Your task to perform on an android device: Is it going to rain this weekend? Image 0: 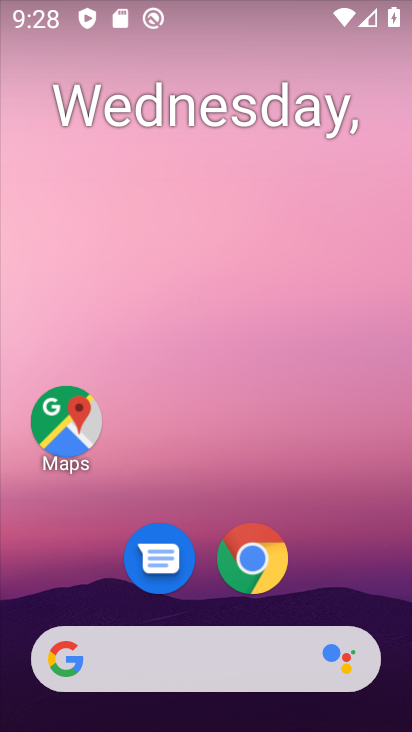
Step 0: press home button
Your task to perform on an android device: Is it going to rain this weekend? Image 1: 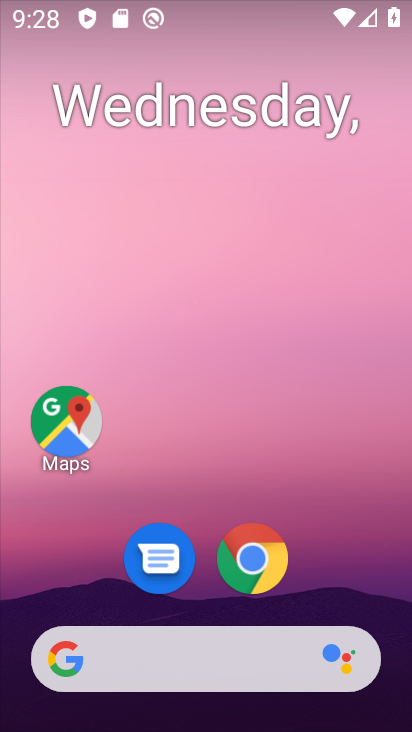
Step 1: click (202, 673)
Your task to perform on an android device: Is it going to rain this weekend? Image 2: 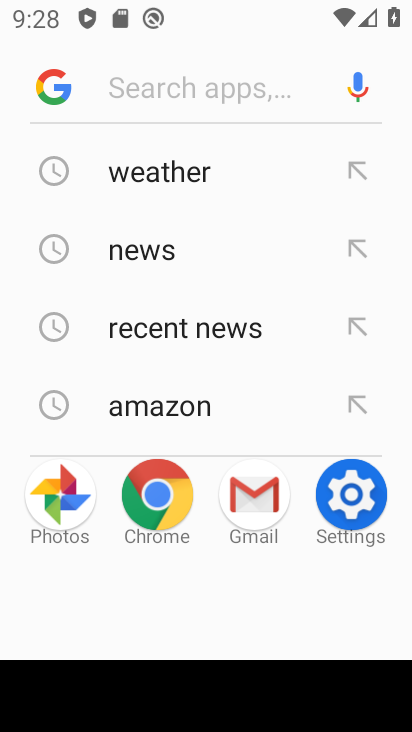
Step 2: click (204, 171)
Your task to perform on an android device: Is it going to rain this weekend? Image 3: 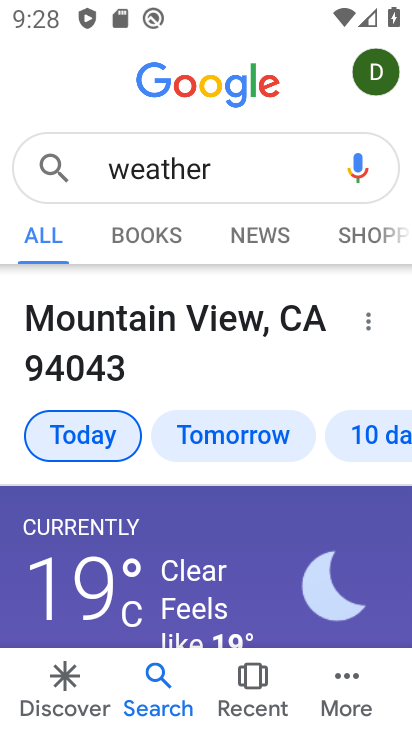
Step 3: click (357, 429)
Your task to perform on an android device: Is it going to rain this weekend? Image 4: 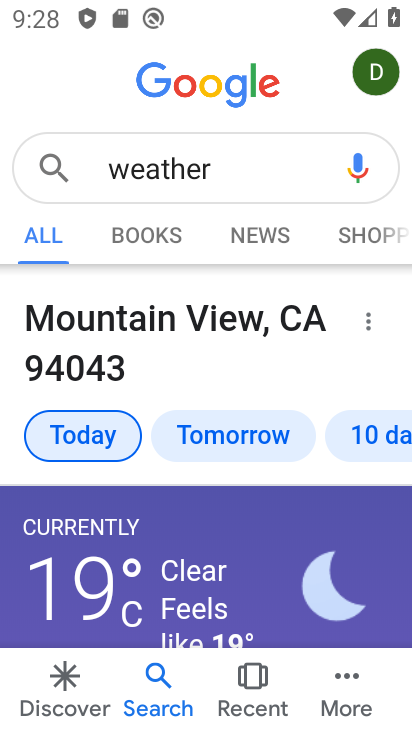
Step 4: click (361, 428)
Your task to perform on an android device: Is it going to rain this weekend? Image 5: 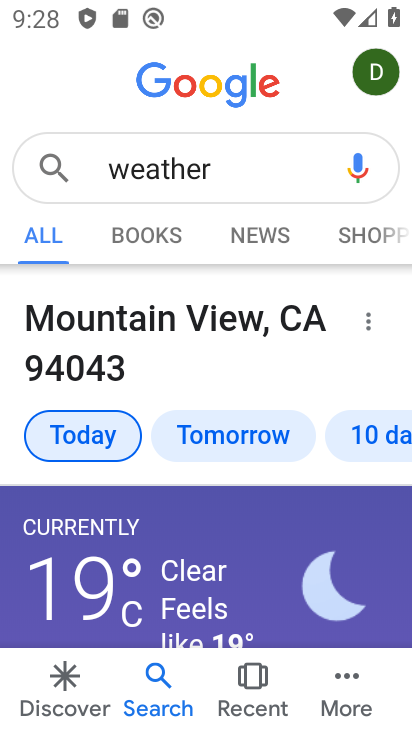
Step 5: task complete